Your task to perform on an android device: turn on wifi Image 0: 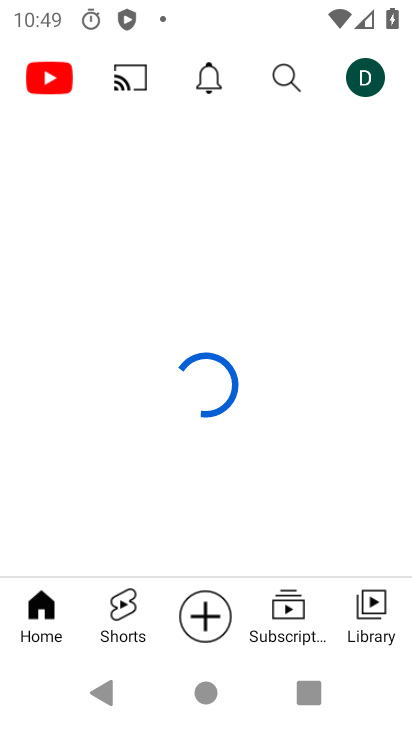
Step 0: press home button
Your task to perform on an android device: turn on wifi Image 1: 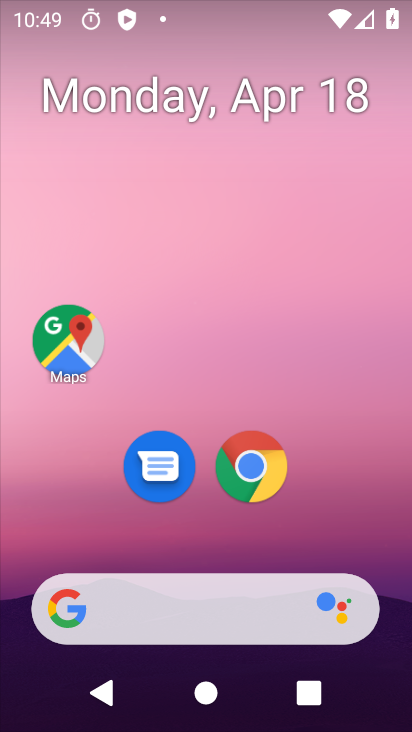
Step 1: click (263, 542)
Your task to perform on an android device: turn on wifi Image 2: 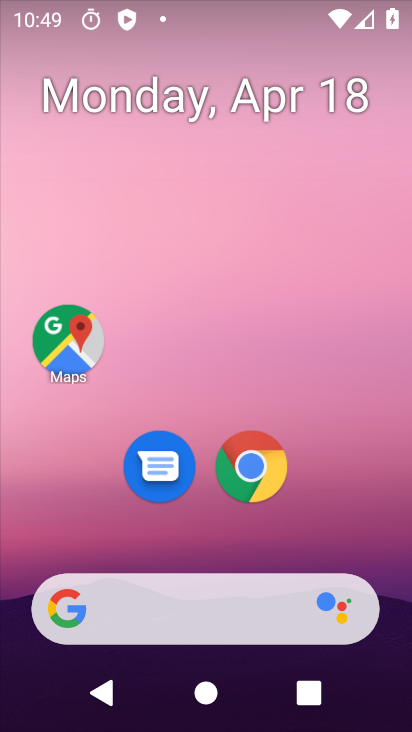
Step 2: drag from (257, 510) to (199, 132)
Your task to perform on an android device: turn on wifi Image 3: 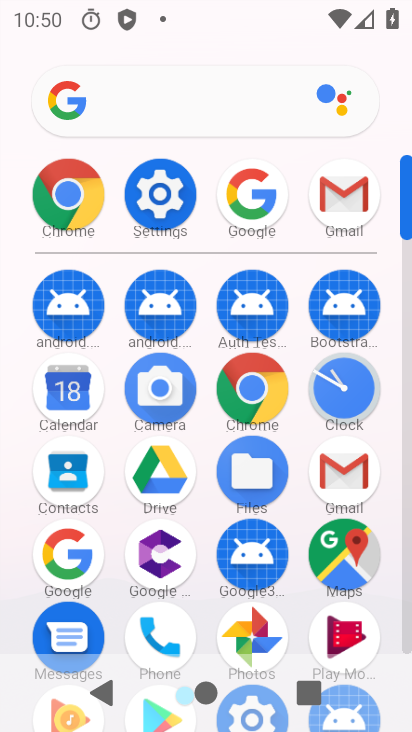
Step 3: click (177, 212)
Your task to perform on an android device: turn on wifi Image 4: 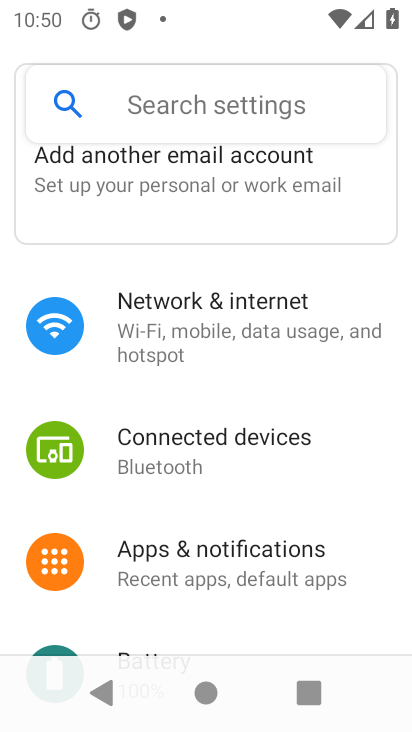
Step 4: click (203, 352)
Your task to perform on an android device: turn on wifi Image 5: 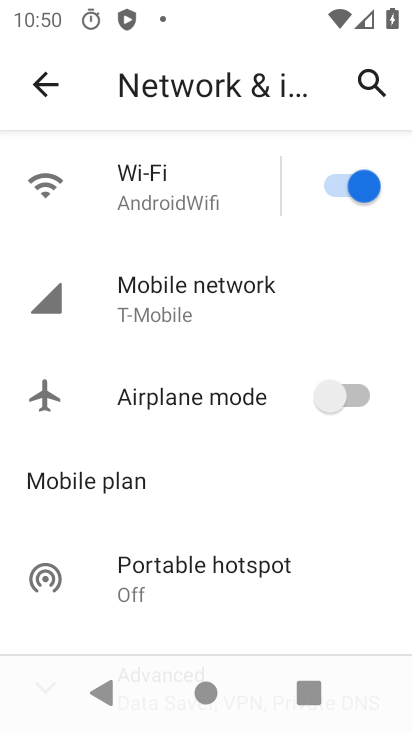
Step 5: task complete